Your task to perform on an android device: change keyboard looks Image 0: 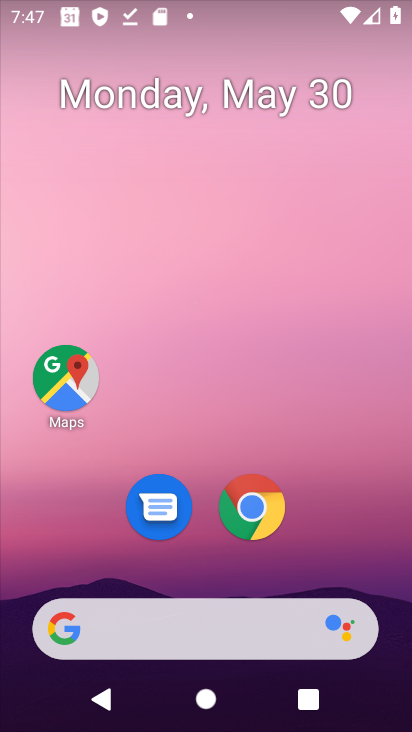
Step 0: drag from (316, 518) to (319, 156)
Your task to perform on an android device: change keyboard looks Image 1: 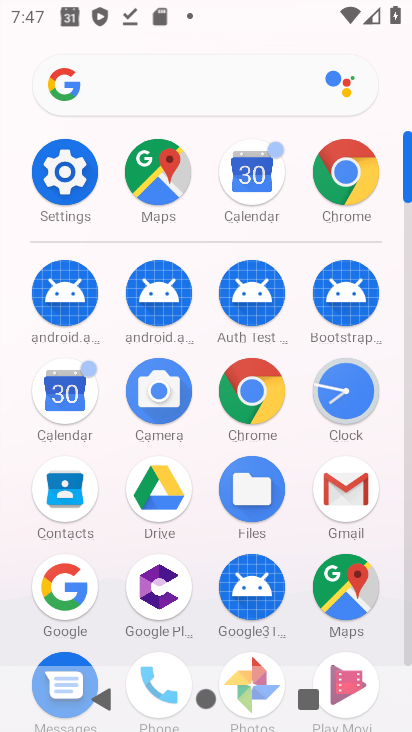
Step 1: click (75, 184)
Your task to perform on an android device: change keyboard looks Image 2: 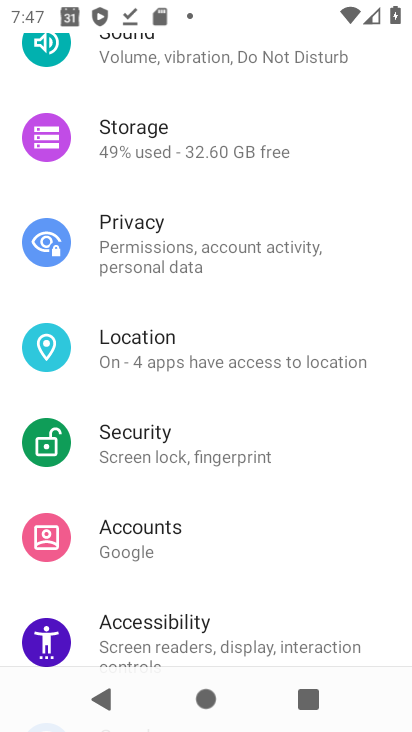
Step 2: drag from (350, 599) to (329, 280)
Your task to perform on an android device: change keyboard looks Image 3: 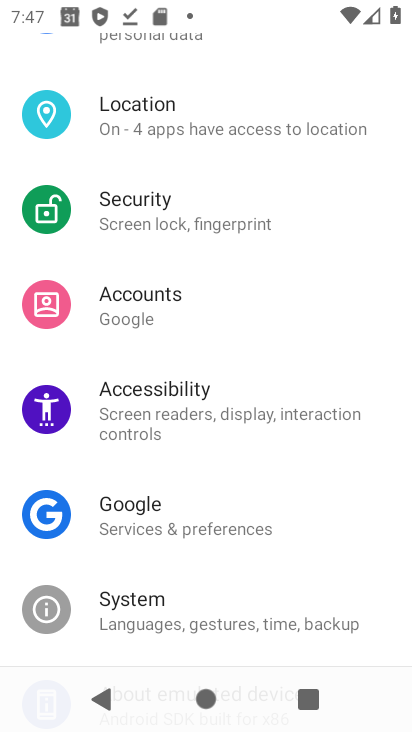
Step 3: drag from (327, 623) to (332, 380)
Your task to perform on an android device: change keyboard looks Image 4: 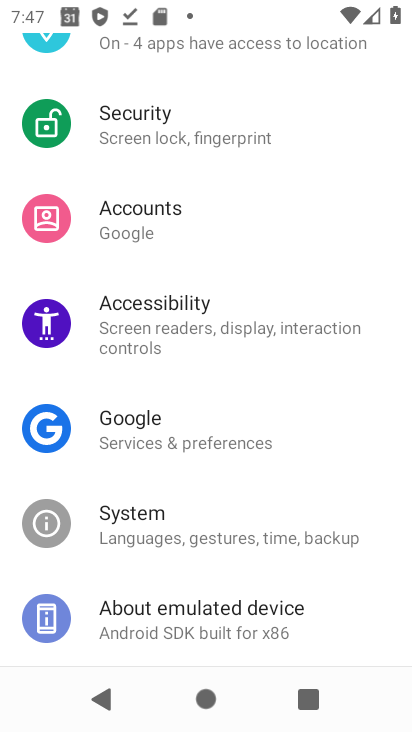
Step 4: click (232, 543)
Your task to perform on an android device: change keyboard looks Image 5: 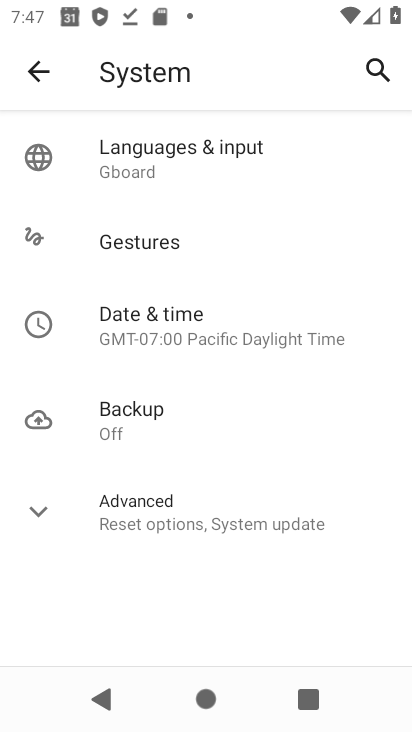
Step 5: click (180, 146)
Your task to perform on an android device: change keyboard looks Image 6: 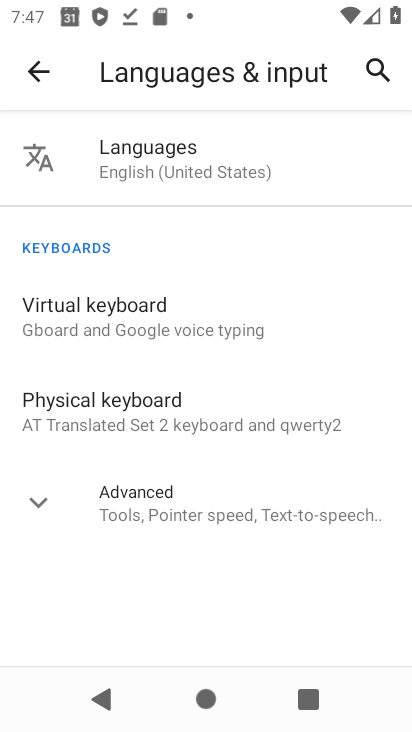
Step 6: click (143, 320)
Your task to perform on an android device: change keyboard looks Image 7: 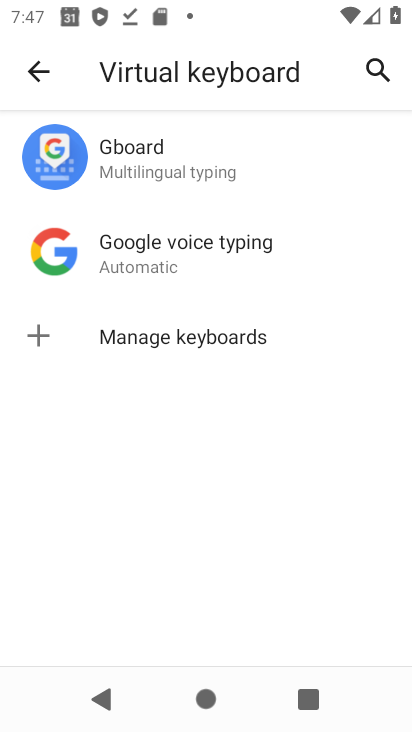
Step 7: click (172, 170)
Your task to perform on an android device: change keyboard looks Image 8: 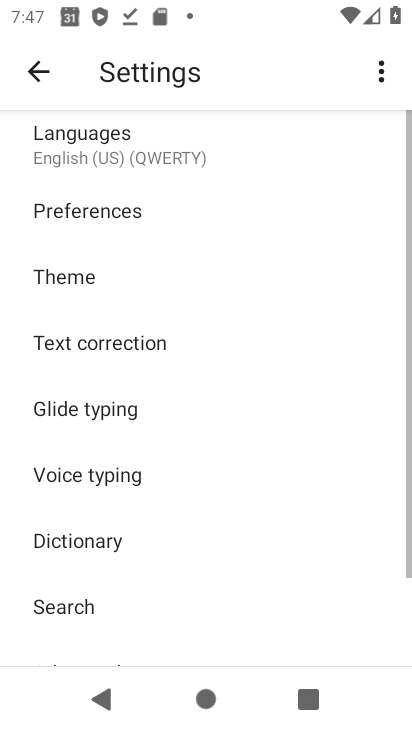
Step 8: click (138, 294)
Your task to perform on an android device: change keyboard looks Image 9: 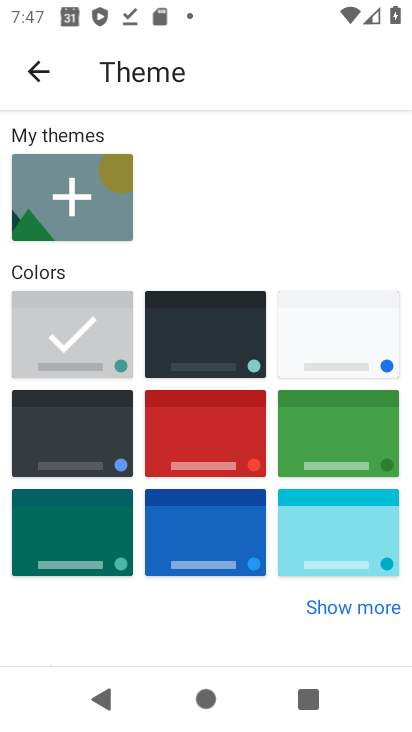
Step 9: click (215, 364)
Your task to perform on an android device: change keyboard looks Image 10: 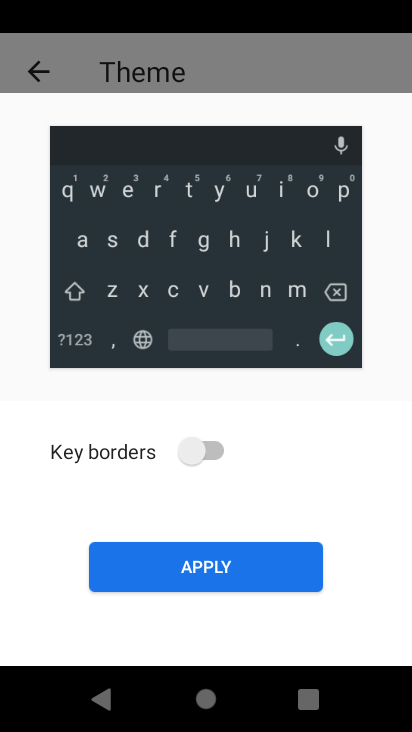
Step 10: click (265, 572)
Your task to perform on an android device: change keyboard looks Image 11: 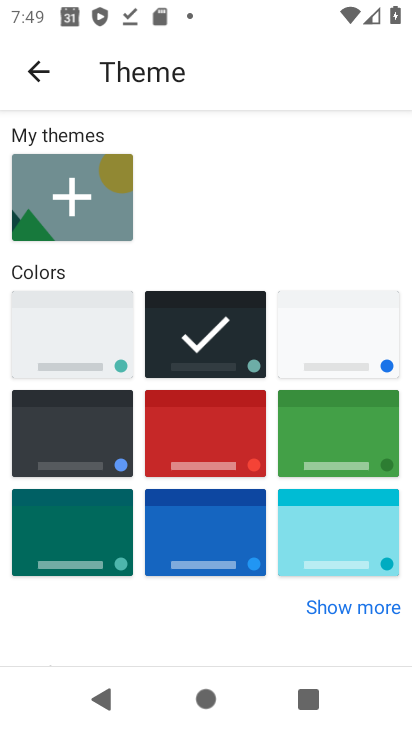
Step 11: task complete